Your task to perform on an android device: turn off picture-in-picture Image 0: 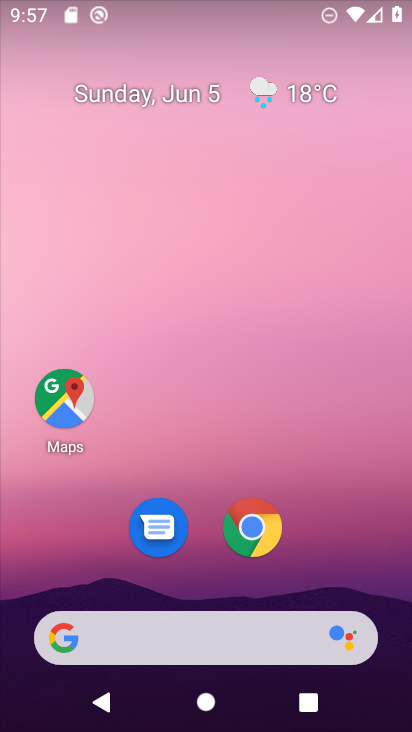
Step 0: drag from (167, 565) to (274, 36)
Your task to perform on an android device: turn off picture-in-picture Image 1: 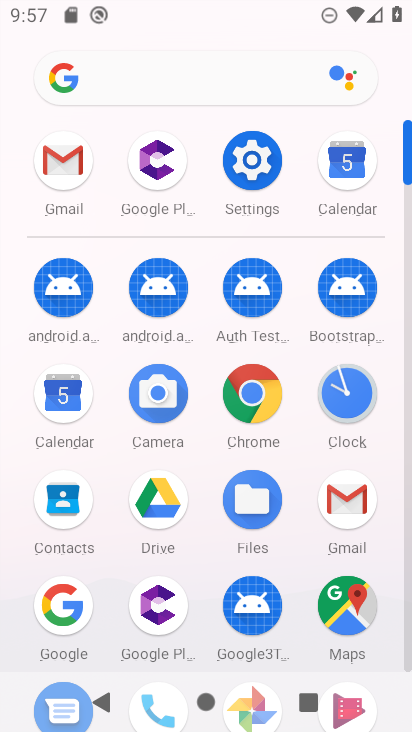
Step 1: click (281, 159)
Your task to perform on an android device: turn off picture-in-picture Image 2: 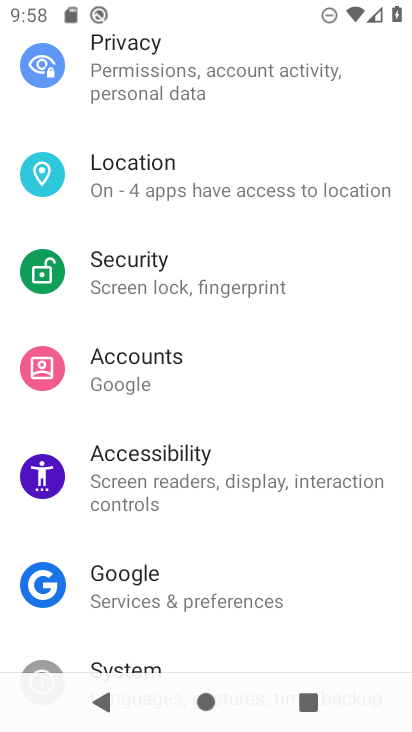
Step 2: drag from (273, 173) to (273, 634)
Your task to perform on an android device: turn off picture-in-picture Image 3: 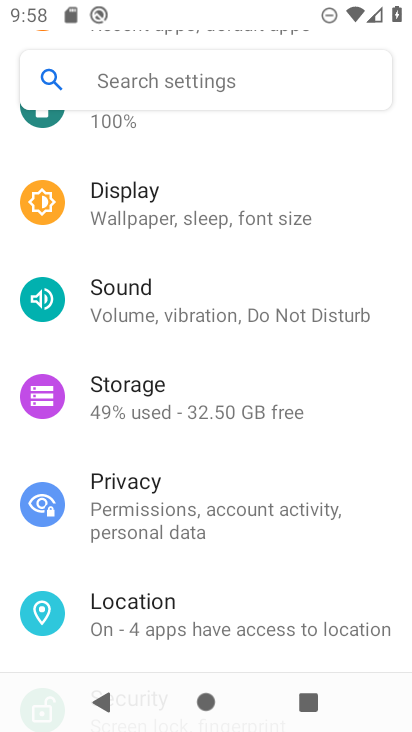
Step 3: drag from (242, 243) to (214, 383)
Your task to perform on an android device: turn off picture-in-picture Image 4: 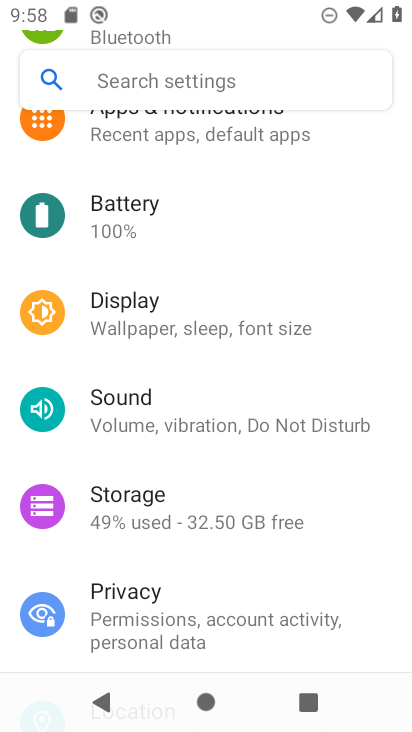
Step 4: drag from (178, 231) to (143, 550)
Your task to perform on an android device: turn off picture-in-picture Image 5: 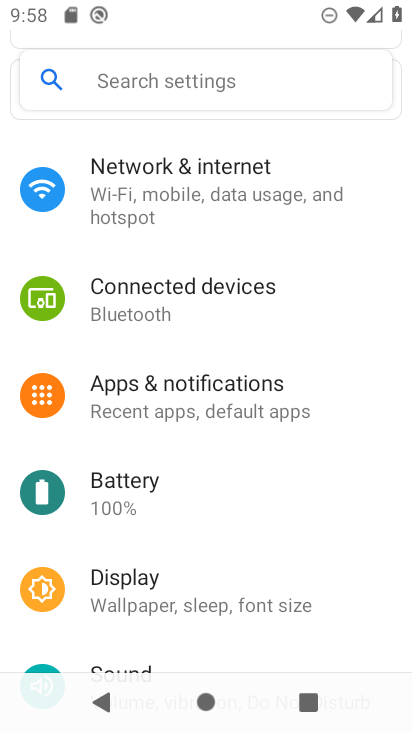
Step 5: click (179, 377)
Your task to perform on an android device: turn off picture-in-picture Image 6: 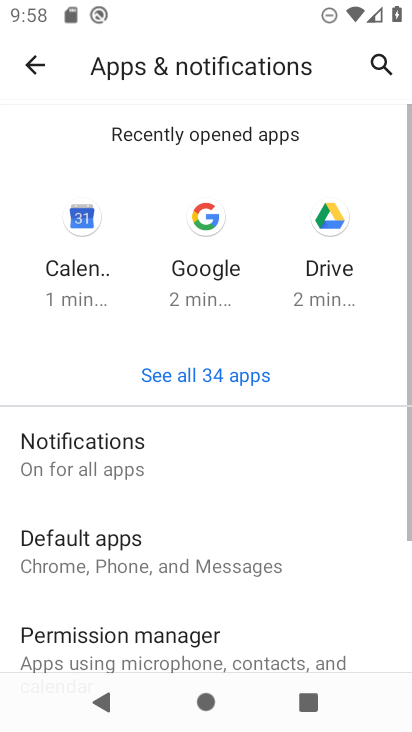
Step 6: drag from (141, 650) to (166, 113)
Your task to perform on an android device: turn off picture-in-picture Image 7: 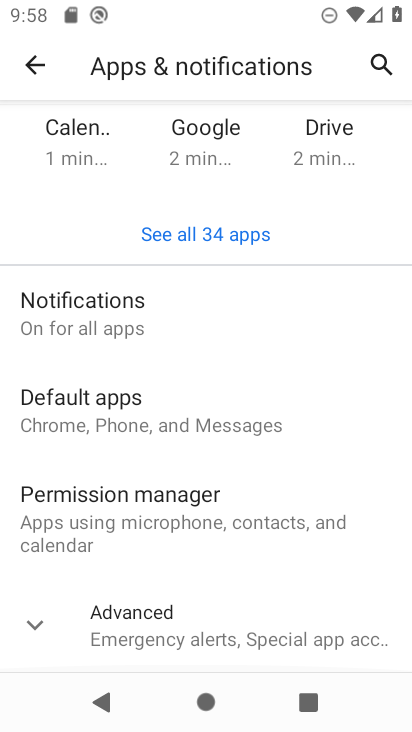
Step 7: drag from (187, 655) to (222, 118)
Your task to perform on an android device: turn off picture-in-picture Image 8: 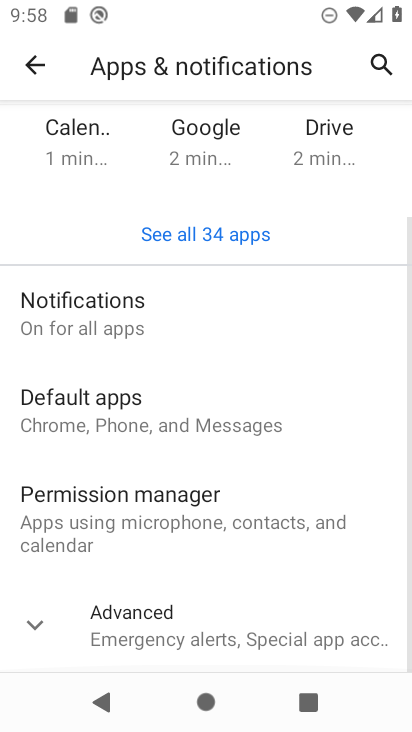
Step 8: click (132, 662)
Your task to perform on an android device: turn off picture-in-picture Image 9: 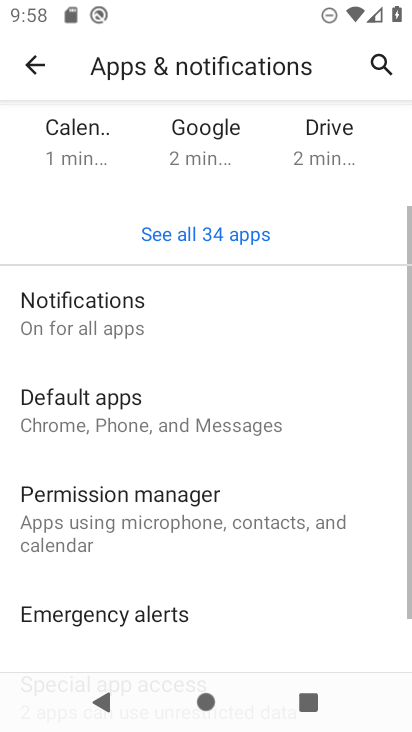
Step 9: drag from (151, 628) to (197, 91)
Your task to perform on an android device: turn off picture-in-picture Image 10: 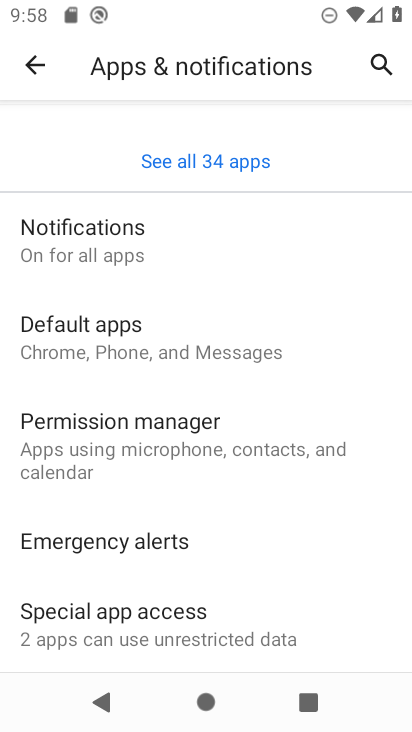
Step 10: click (111, 621)
Your task to perform on an android device: turn off picture-in-picture Image 11: 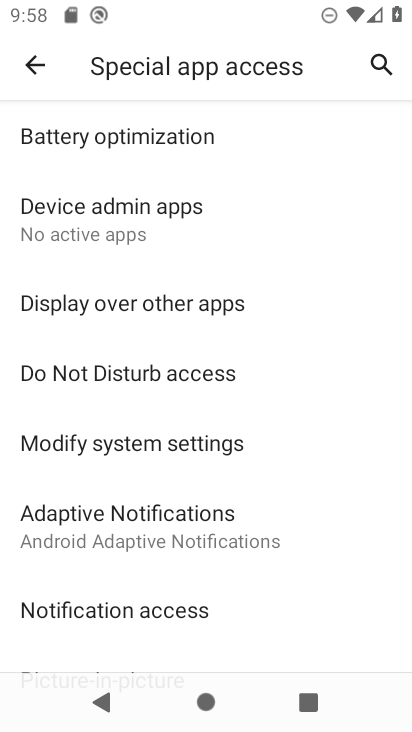
Step 11: drag from (156, 561) to (137, 54)
Your task to perform on an android device: turn off picture-in-picture Image 12: 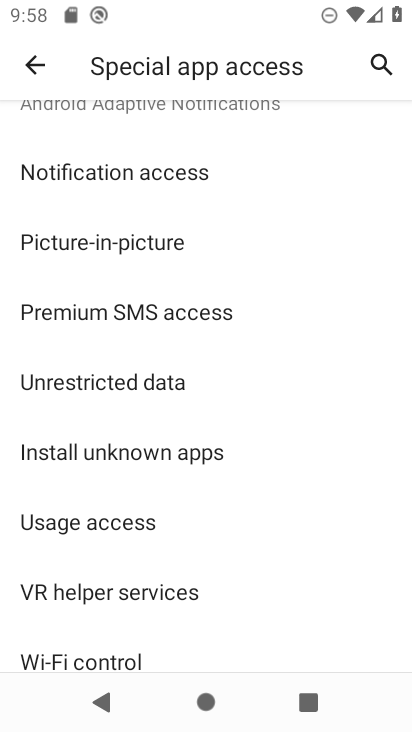
Step 12: click (125, 248)
Your task to perform on an android device: turn off picture-in-picture Image 13: 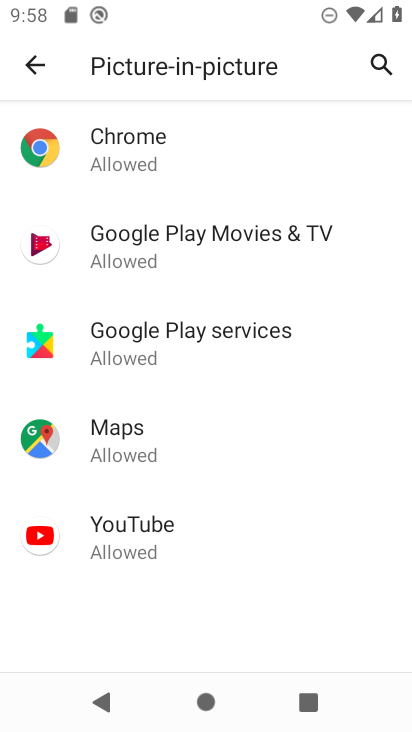
Step 13: click (109, 145)
Your task to perform on an android device: turn off picture-in-picture Image 14: 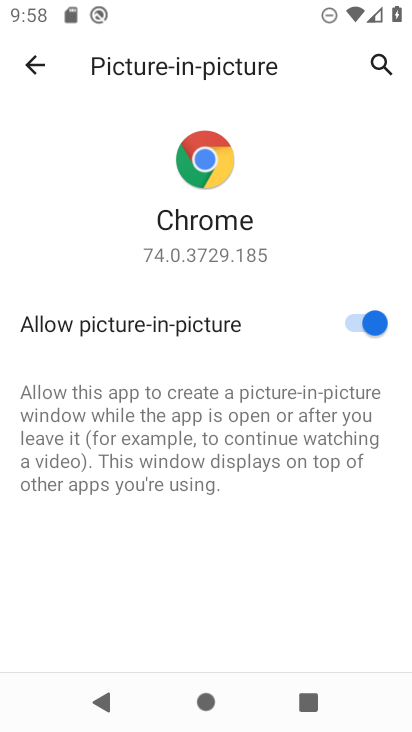
Step 14: click (364, 318)
Your task to perform on an android device: turn off picture-in-picture Image 15: 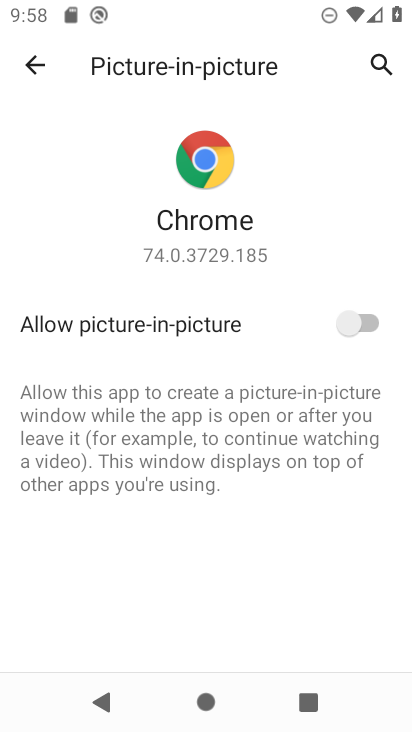
Step 15: task complete